Your task to perform on an android device: turn on data saver in the chrome app Image 0: 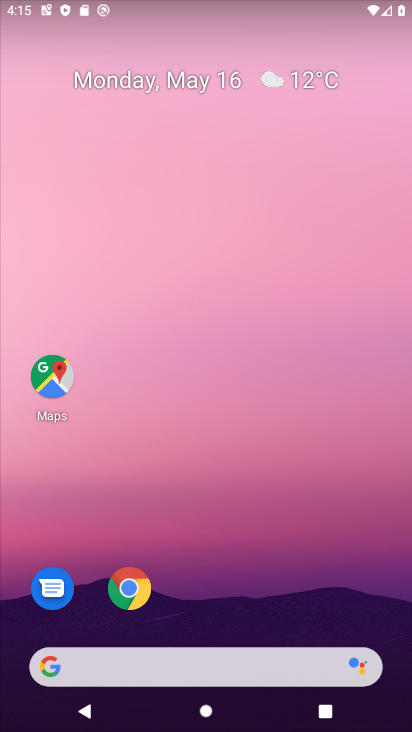
Step 0: click (119, 592)
Your task to perform on an android device: turn on data saver in the chrome app Image 1: 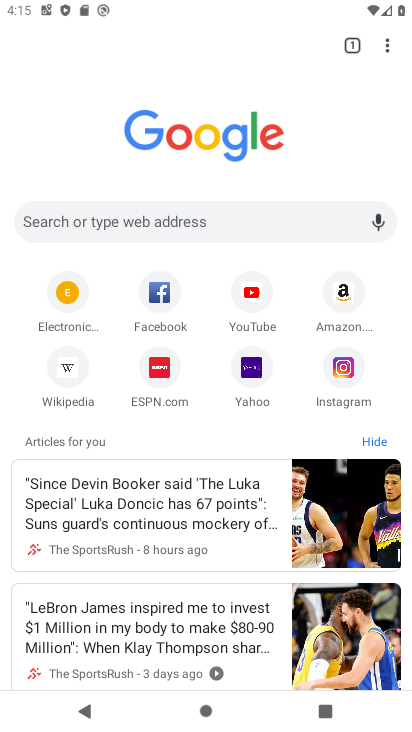
Step 1: drag from (392, 38) to (244, 441)
Your task to perform on an android device: turn on data saver in the chrome app Image 2: 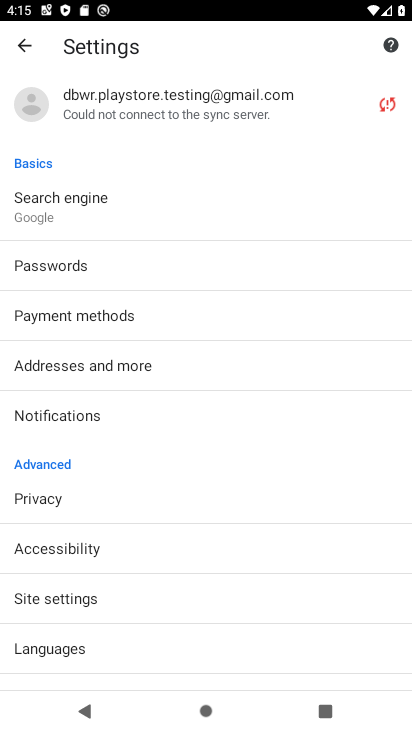
Step 2: drag from (91, 605) to (175, 200)
Your task to perform on an android device: turn on data saver in the chrome app Image 3: 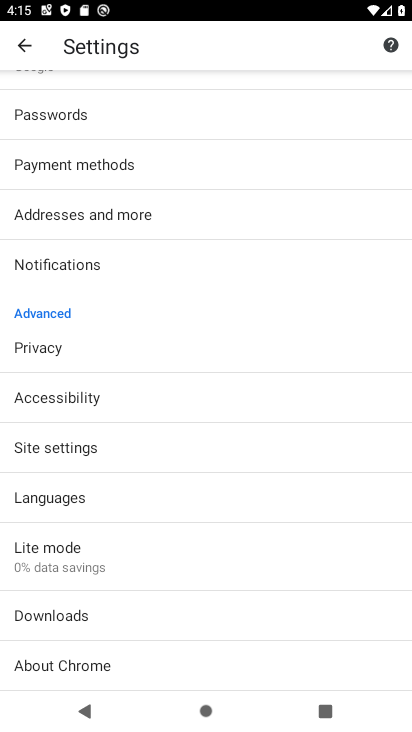
Step 3: click (83, 542)
Your task to perform on an android device: turn on data saver in the chrome app Image 4: 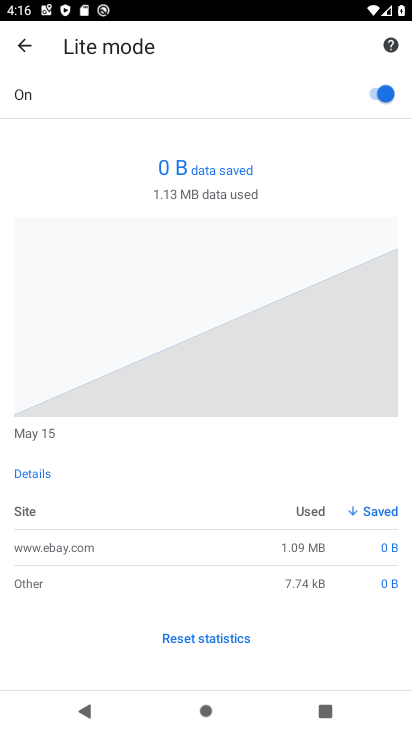
Step 4: task complete